Your task to perform on an android device: Show me some nice wallpapers for my laptop Image 0: 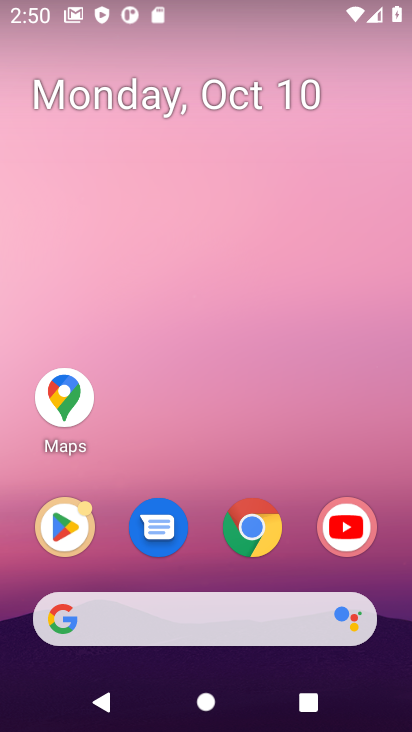
Step 0: press home button
Your task to perform on an android device: Show me some nice wallpapers for my laptop Image 1: 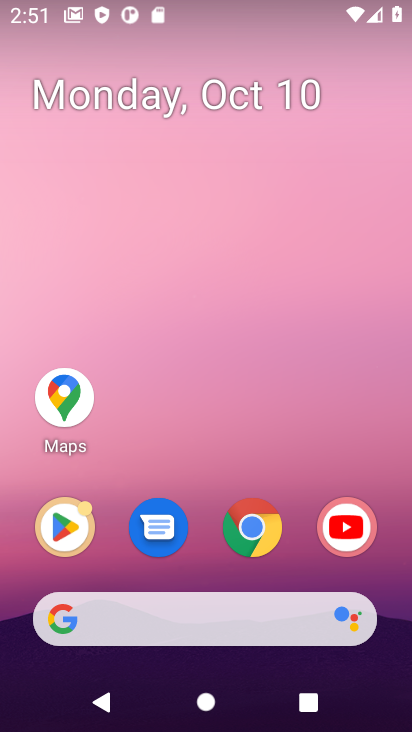
Step 1: click (220, 624)
Your task to perform on an android device: Show me some nice wallpapers for my laptop Image 2: 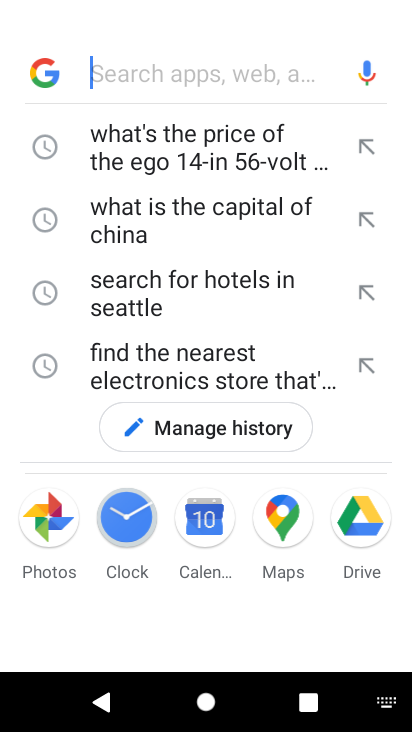
Step 2: type "Show me some nice wallpapers for my laptop"
Your task to perform on an android device: Show me some nice wallpapers for my laptop Image 3: 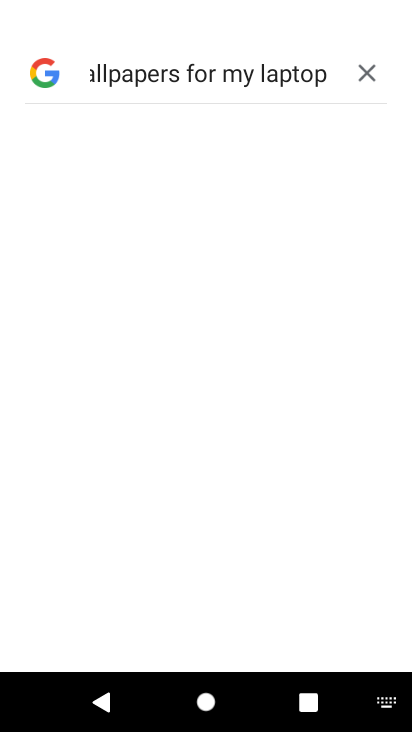
Step 3: press enter
Your task to perform on an android device: Show me some nice wallpapers for my laptop Image 4: 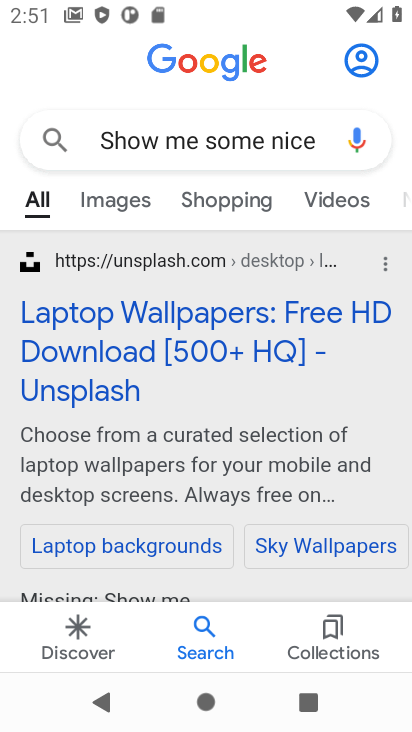
Step 4: click (234, 338)
Your task to perform on an android device: Show me some nice wallpapers for my laptop Image 5: 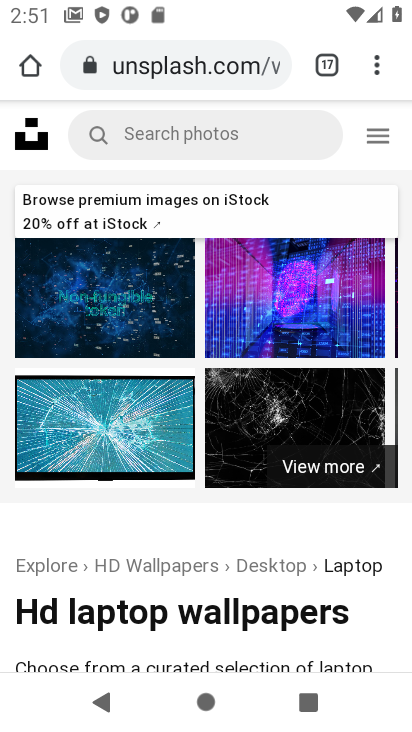
Step 5: drag from (251, 589) to (245, 420)
Your task to perform on an android device: Show me some nice wallpapers for my laptop Image 6: 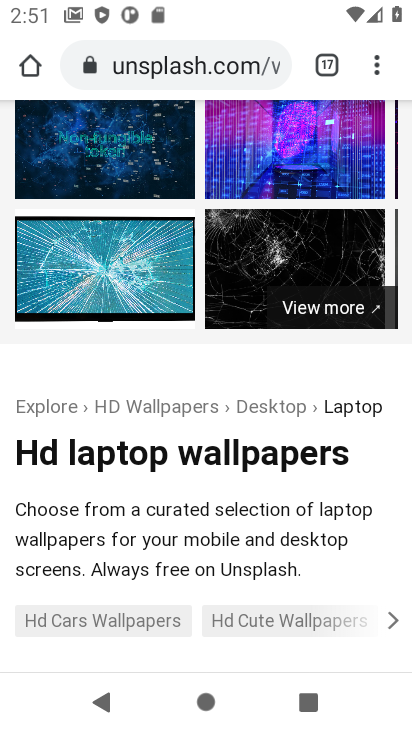
Step 6: click (326, 310)
Your task to perform on an android device: Show me some nice wallpapers for my laptop Image 7: 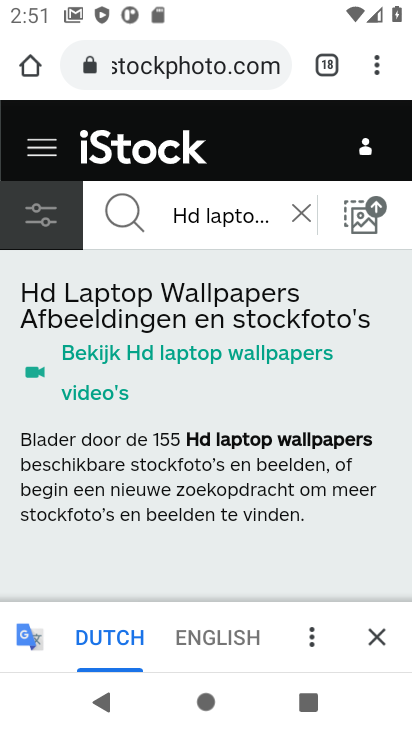
Step 7: drag from (240, 508) to (222, 340)
Your task to perform on an android device: Show me some nice wallpapers for my laptop Image 8: 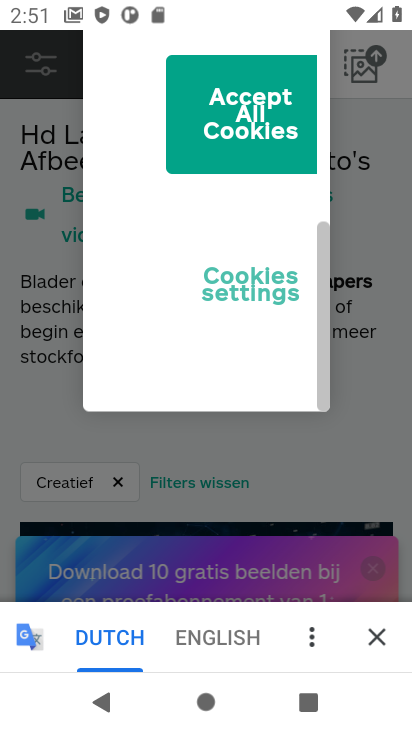
Step 8: click (244, 125)
Your task to perform on an android device: Show me some nice wallpapers for my laptop Image 9: 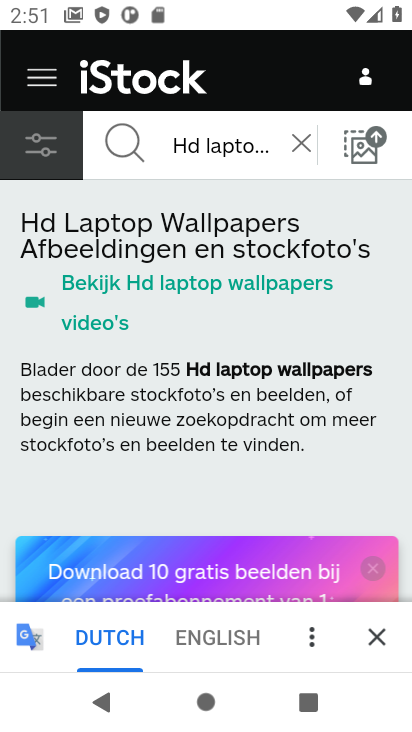
Step 9: task complete